Your task to perform on an android device: turn on the 24-hour format for clock Image 0: 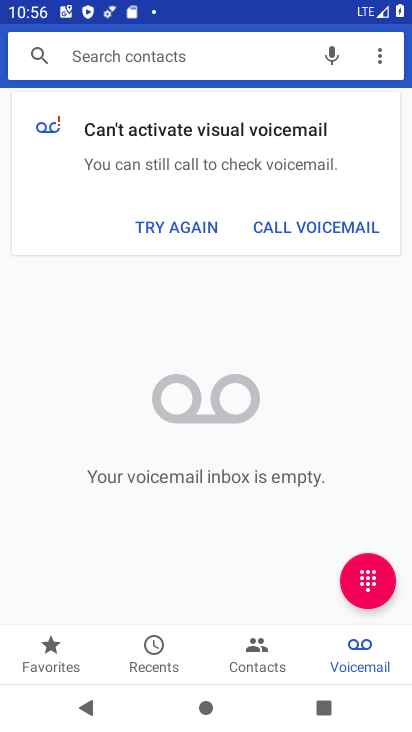
Step 0: press back button
Your task to perform on an android device: turn on the 24-hour format for clock Image 1: 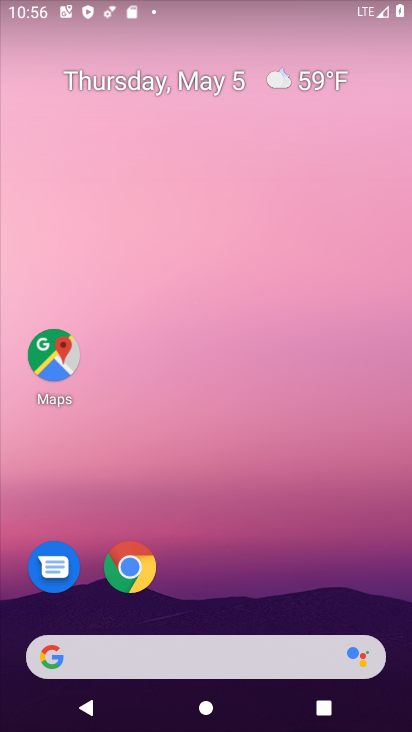
Step 1: drag from (106, 567) to (252, 59)
Your task to perform on an android device: turn on the 24-hour format for clock Image 2: 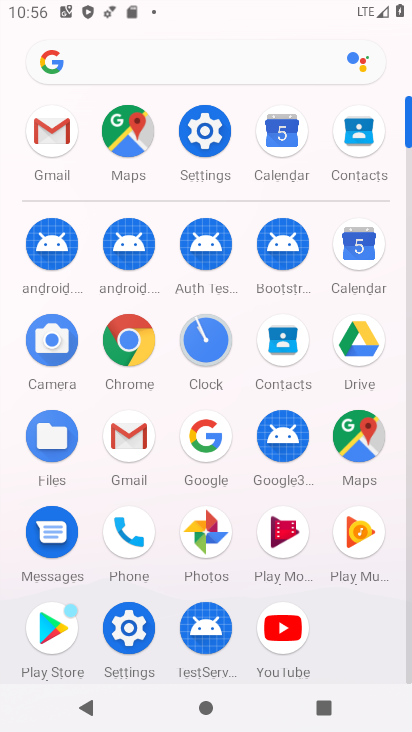
Step 2: click (212, 346)
Your task to perform on an android device: turn on the 24-hour format for clock Image 3: 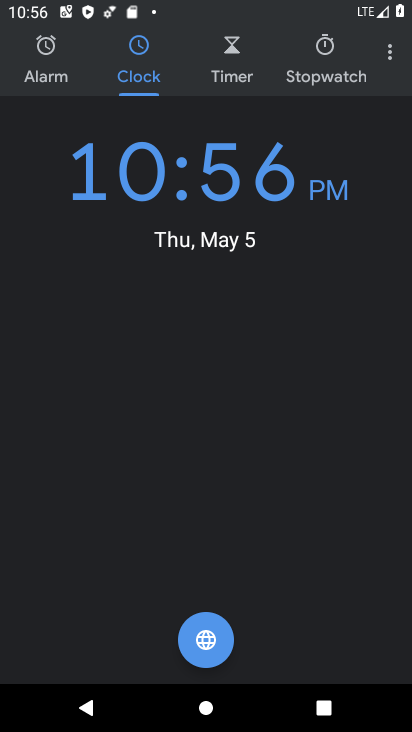
Step 3: click (389, 54)
Your task to perform on an android device: turn on the 24-hour format for clock Image 4: 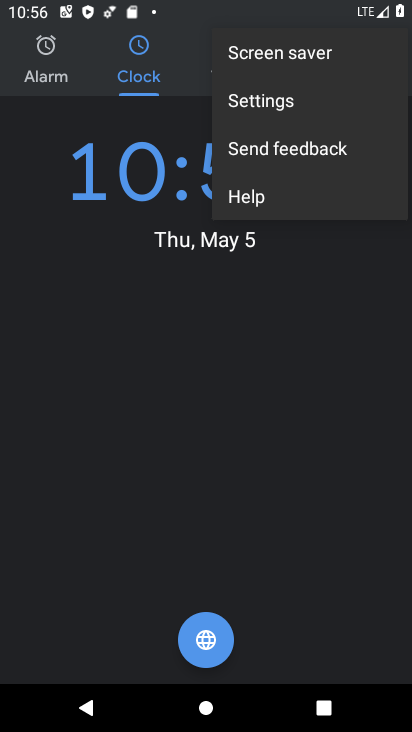
Step 4: click (253, 96)
Your task to perform on an android device: turn on the 24-hour format for clock Image 5: 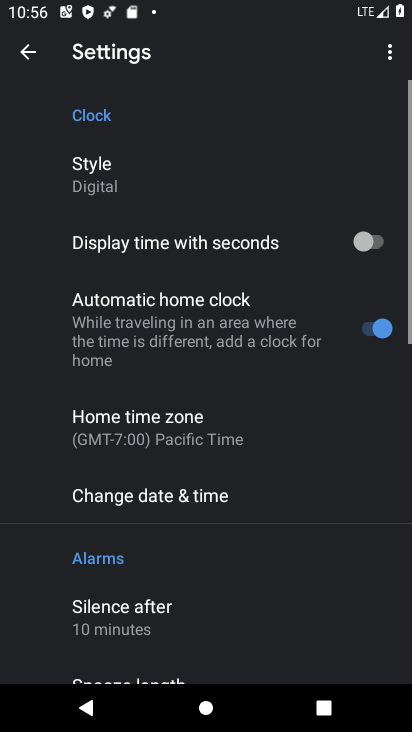
Step 5: drag from (126, 615) to (213, 73)
Your task to perform on an android device: turn on the 24-hour format for clock Image 6: 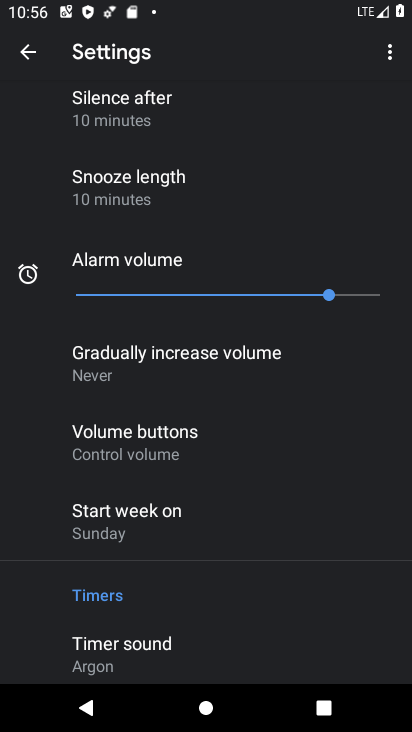
Step 6: drag from (149, 616) to (239, 79)
Your task to perform on an android device: turn on the 24-hour format for clock Image 7: 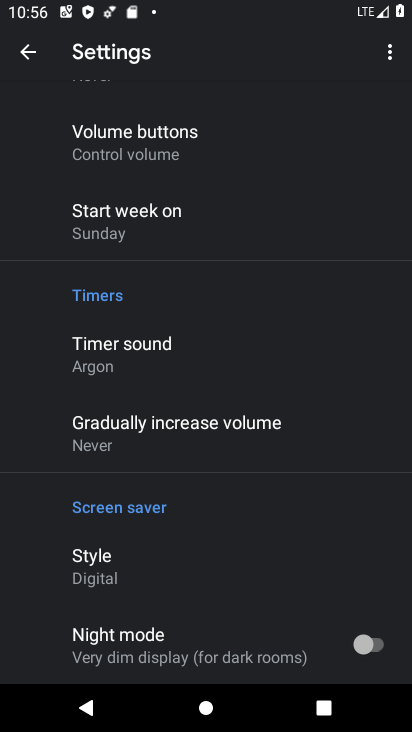
Step 7: drag from (176, 596) to (276, 53)
Your task to perform on an android device: turn on the 24-hour format for clock Image 8: 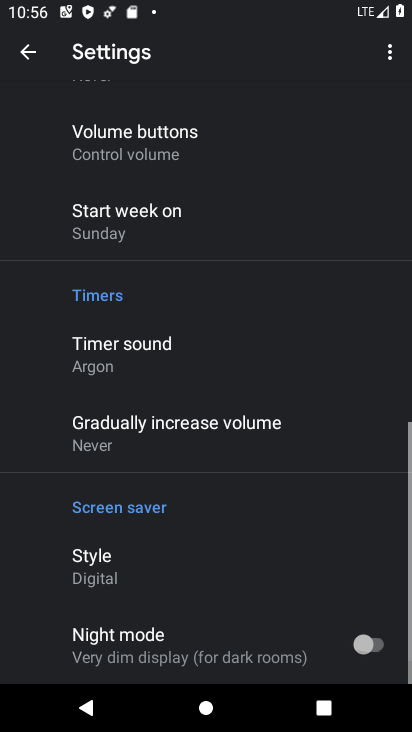
Step 8: drag from (237, 205) to (178, 636)
Your task to perform on an android device: turn on the 24-hour format for clock Image 9: 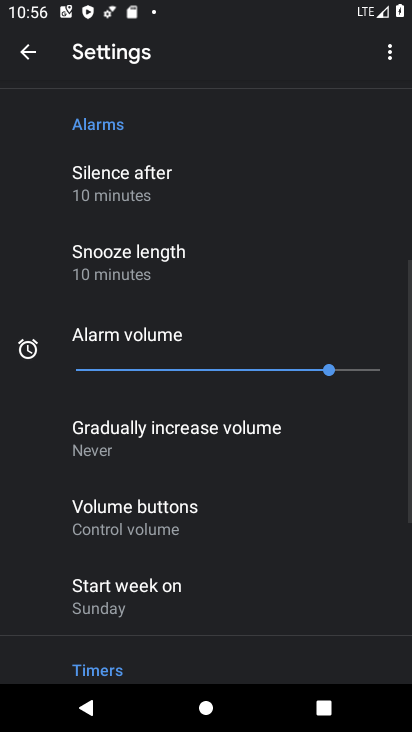
Step 9: drag from (187, 217) to (160, 659)
Your task to perform on an android device: turn on the 24-hour format for clock Image 10: 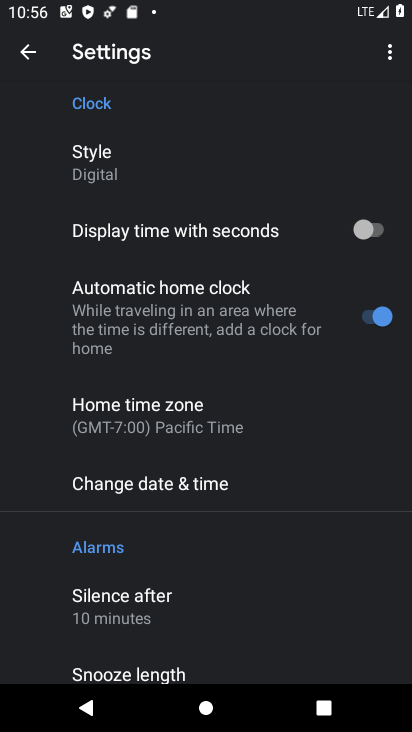
Step 10: click (152, 483)
Your task to perform on an android device: turn on the 24-hour format for clock Image 11: 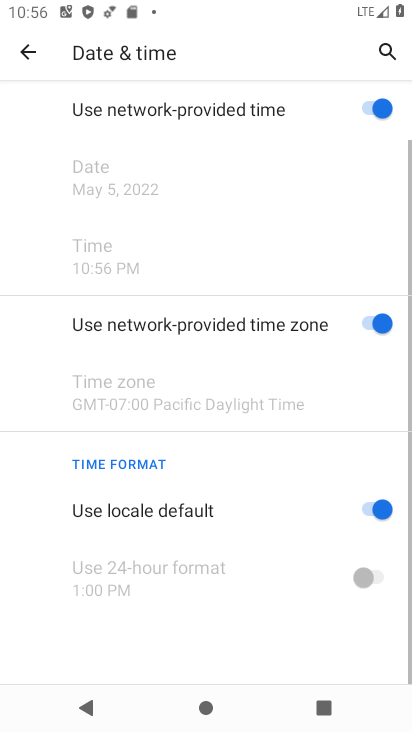
Step 11: drag from (162, 558) to (247, 75)
Your task to perform on an android device: turn on the 24-hour format for clock Image 12: 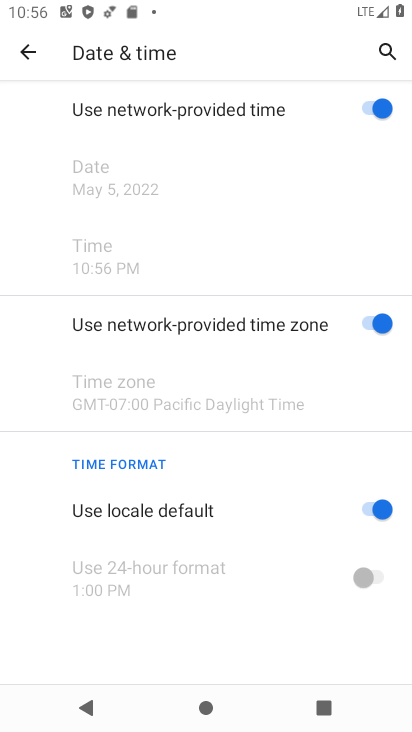
Step 12: click (388, 510)
Your task to perform on an android device: turn on the 24-hour format for clock Image 13: 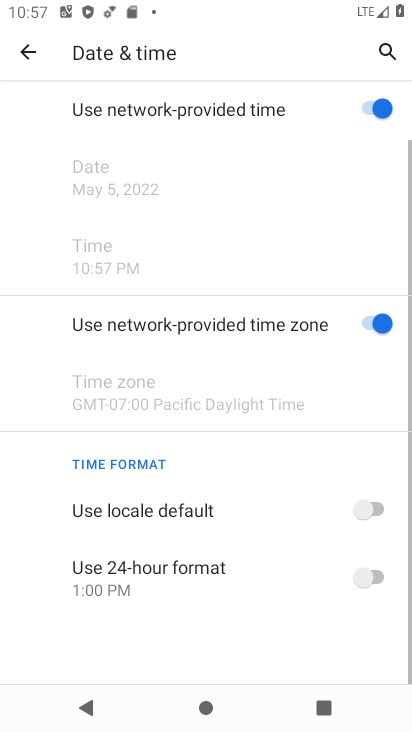
Step 13: click (370, 578)
Your task to perform on an android device: turn on the 24-hour format for clock Image 14: 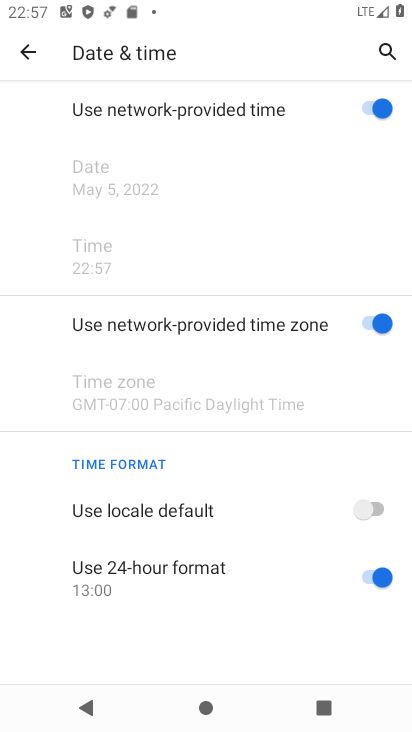
Step 14: task complete